Your task to perform on an android device: toggle notification dots Image 0: 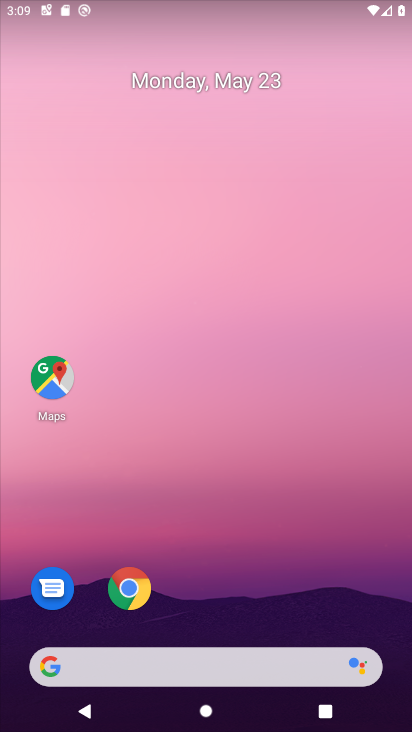
Step 0: drag from (198, 623) to (275, 152)
Your task to perform on an android device: toggle notification dots Image 1: 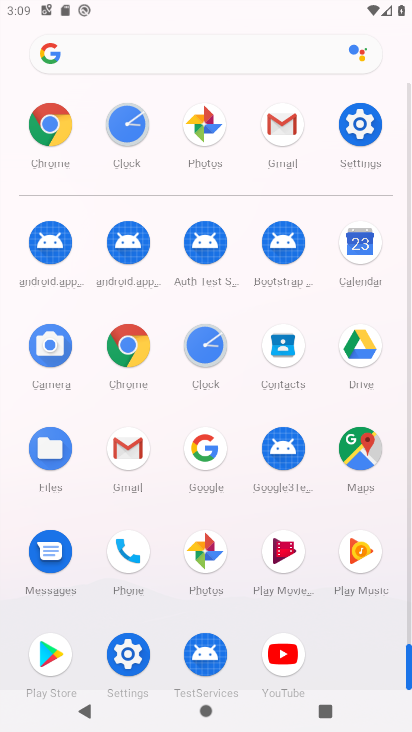
Step 1: click (358, 119)
Your task to perform on an android device: toggle notification dots Image 2: 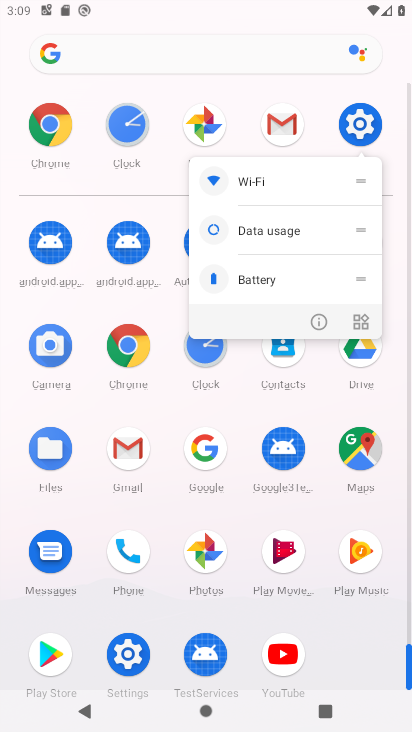
Step 2: click (312, 319)
Your task to perform on an android device: toggle notification dots Image 3: 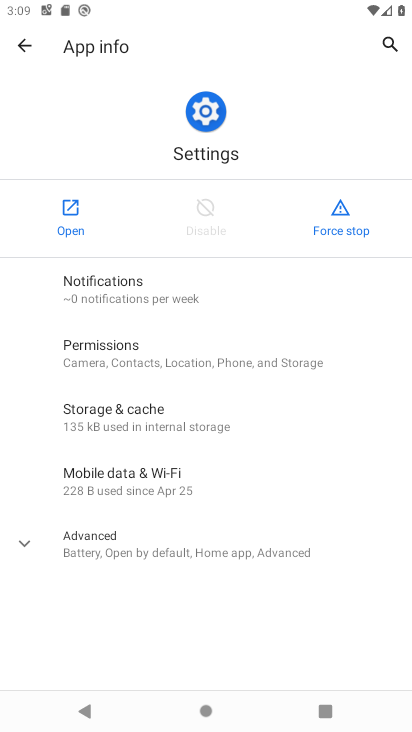
Step 3: click (67, 213)
Your task to perform on an android device: toggle notification dots Image 4: 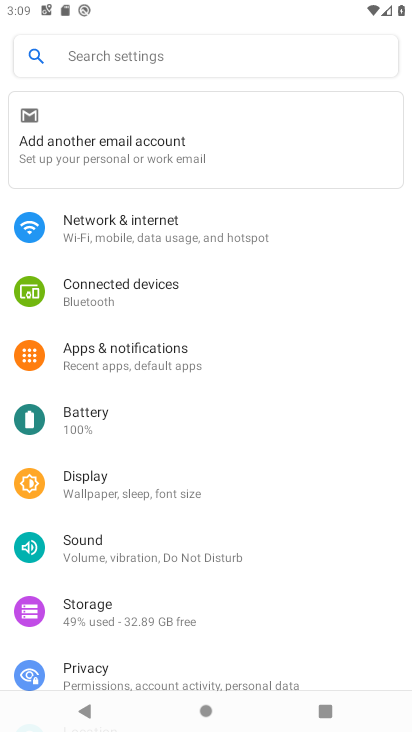
Step 4: click (133, 372)
Your task to perform on an android device: toggle notification dots Image 5: 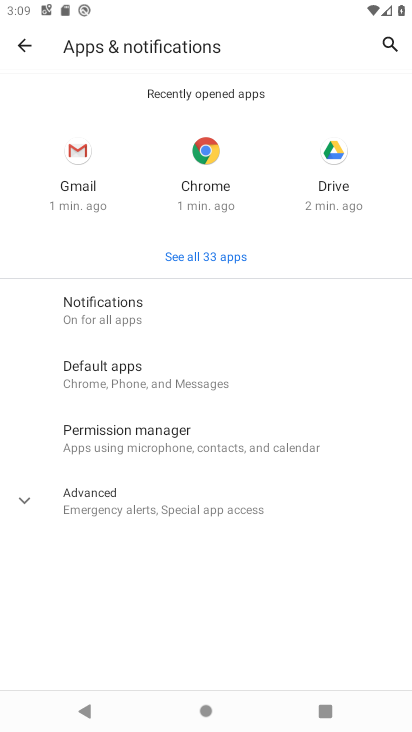
Step 5: click (114, 319)
Your task to perform on an android device: toggle notification dots Image 6: 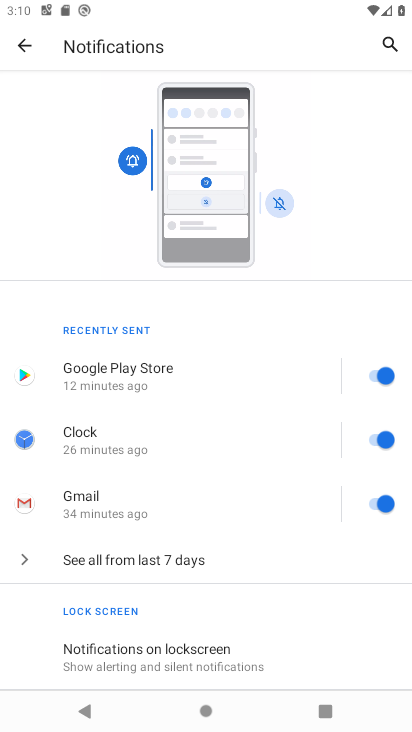
Step 6: drag from (220, 603) to (316, 249)
Your task to perform on an android device: toggle notification dots Image 7: 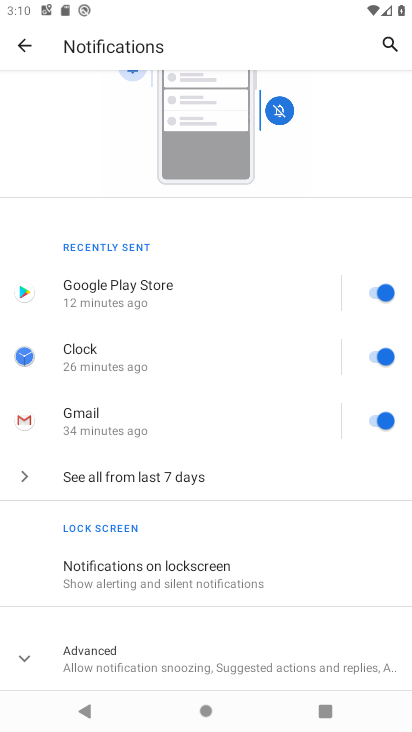
Step 7: click (130, 653)
Your task to perform on an android device: toggle notification dots Image 8: 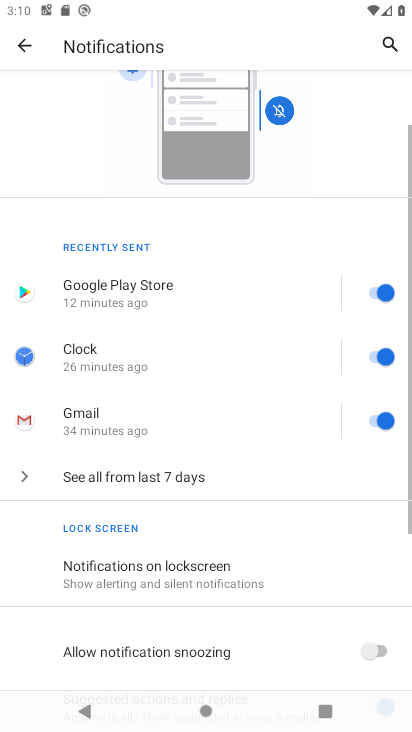
Step 8: drag from (178, 653) to (284, 98)
Your task to perform on an android device: toggle notification dots Image 9: 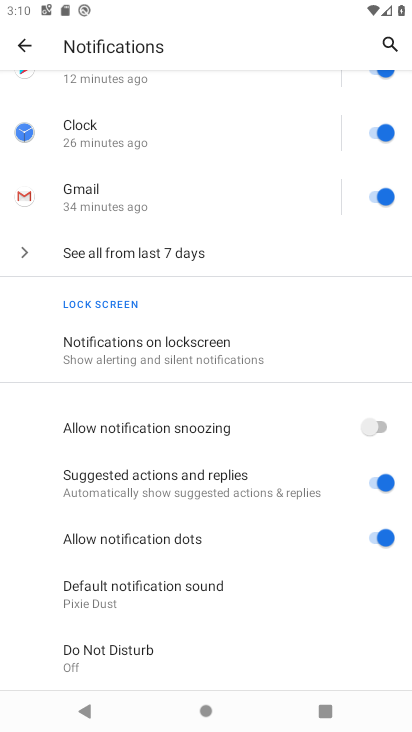
Step 9: click (369, 532)
Your task to perform on an android device: toggle notification dots Image 10: 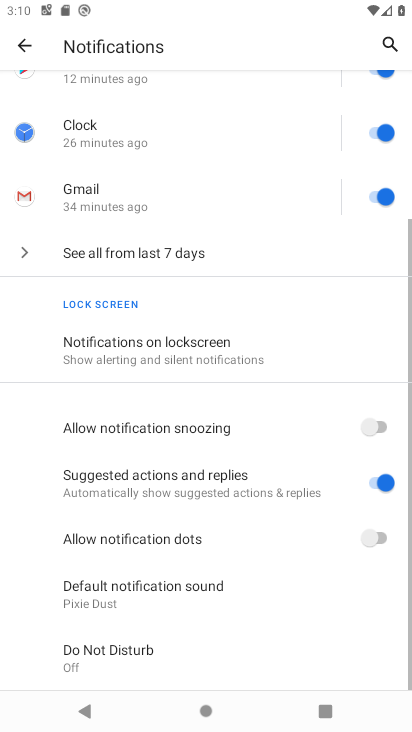
Step 10: task complete